Your task to perform on an android device: Search for Mexican restaurants on Maps Image 0: 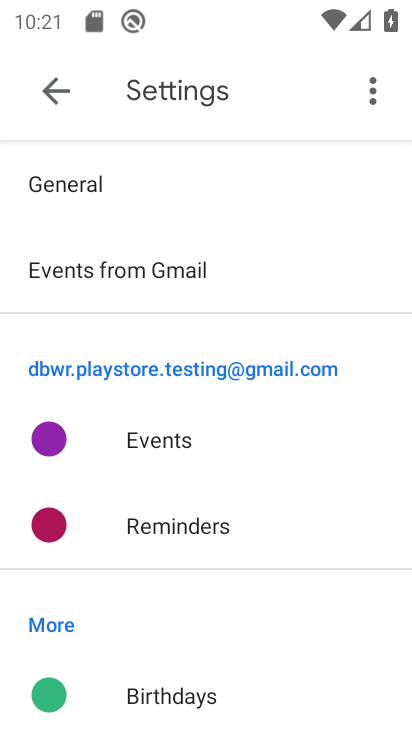
Step 0: press home button
Your task to perform on an android device: Search for Mexican restaurants on Maps Image 1: 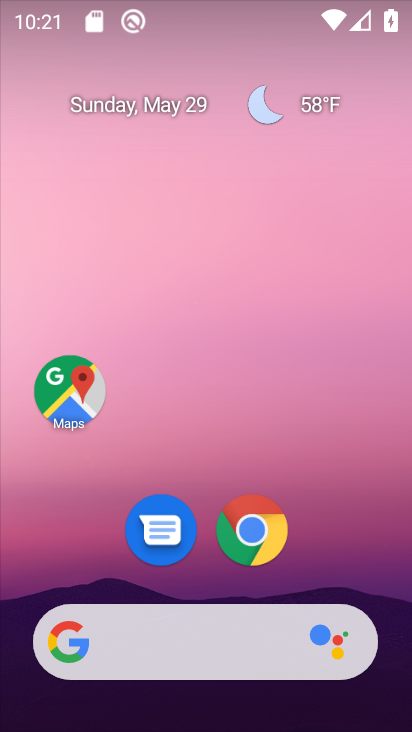
Step 1: click (63, 376)
Your task to perform on an android device: Search for Mexican restaurants on Maps Image 2: 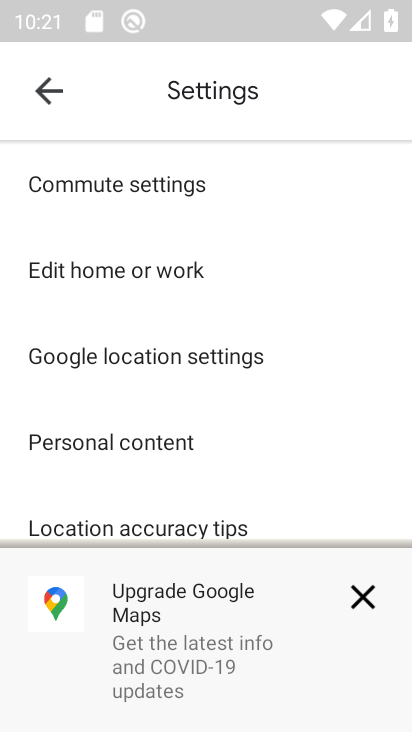
Step 2: click (48, 94)
Your task to perform on an android device: Search for Mexican restaurants on Maps Image 3: 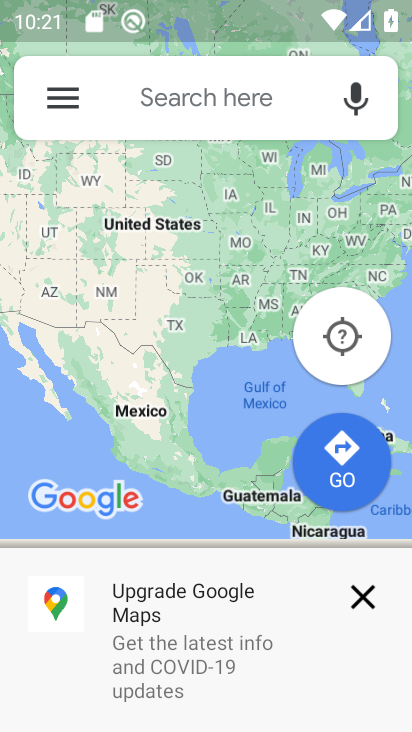
Step 3: click (235, 121)
Your task to perform on an android device: Search for Mexican restaurants on Maps Image 4: 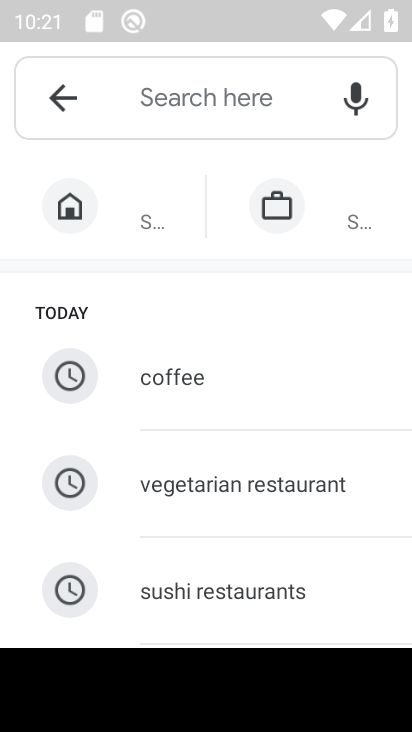
Step 4: type "mexican "
Your task to perform on an android device: Search for Mexican restaurants on Maps Image 5: 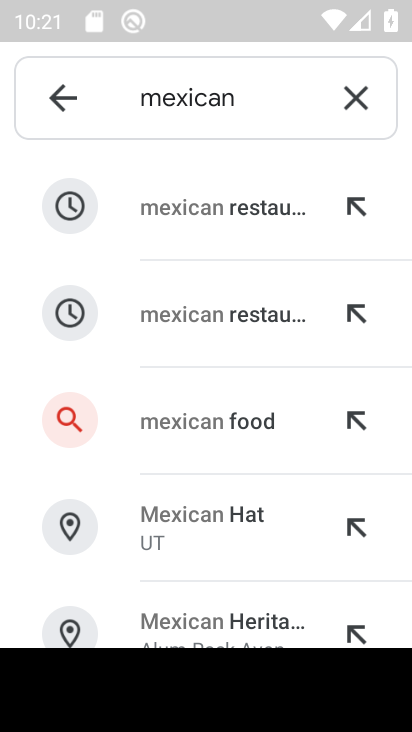
Step 5: click (275, 233)
Your task to perform on an android device: Search for Mexican restaurants on Maps Image 6: 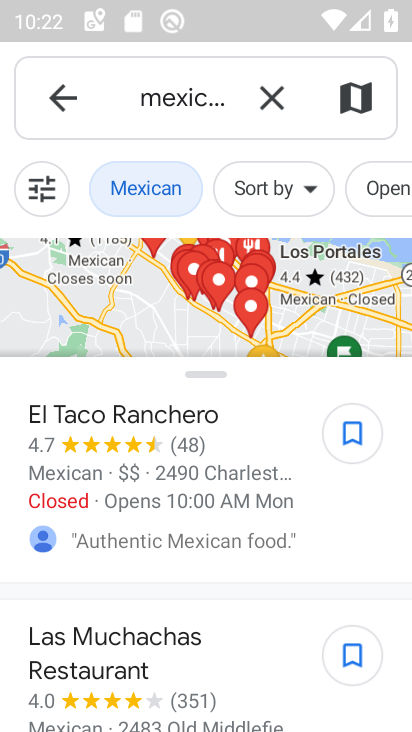
Step 6: task complete